Your task to perform on an android device: turn off wifi Image 0: 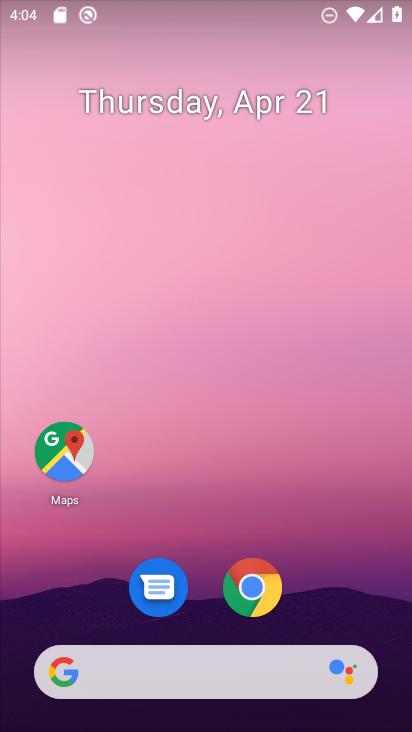
Step 0: drag from (356, 578) to (347, 3)
Your task to perform on an android device: turn off wifi Image 1: 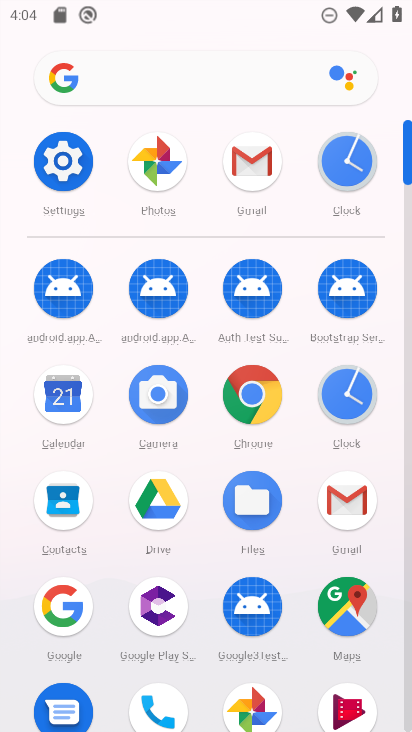
Step 1: click (85, 186)
Your task to perform on an android device: turn off wifi Image 2: 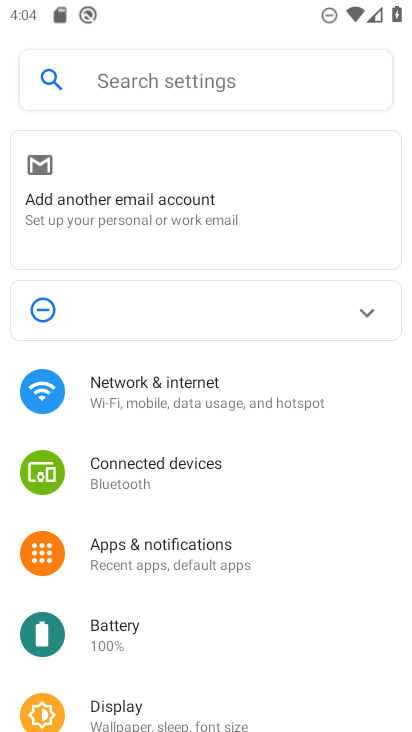
Step 2: click (154, 392)
Your task to perform on an android device: turn off wifi Image 3: 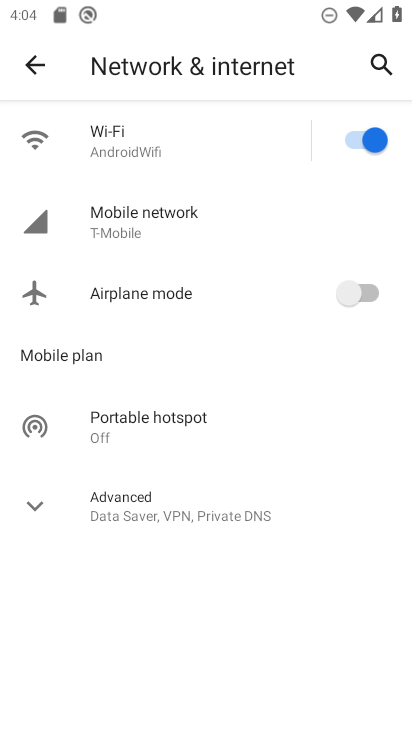
Step 3: click (364, 134)
Your task to perform on an android device: turn off wifi Image 4: 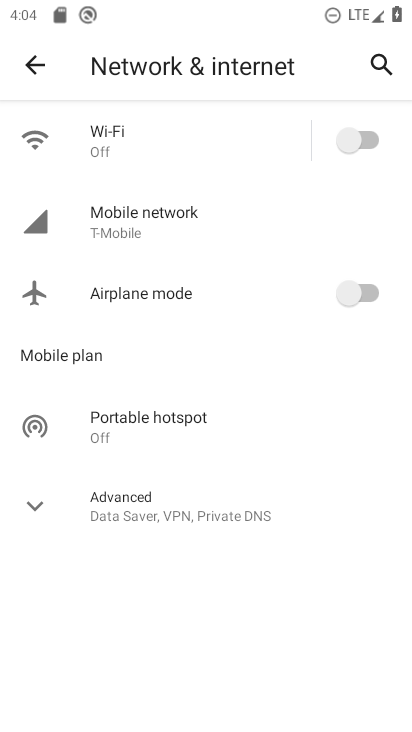
Step 4: task complete